Your task to perform on an android device: Google the capital of Paraguay Image 0: 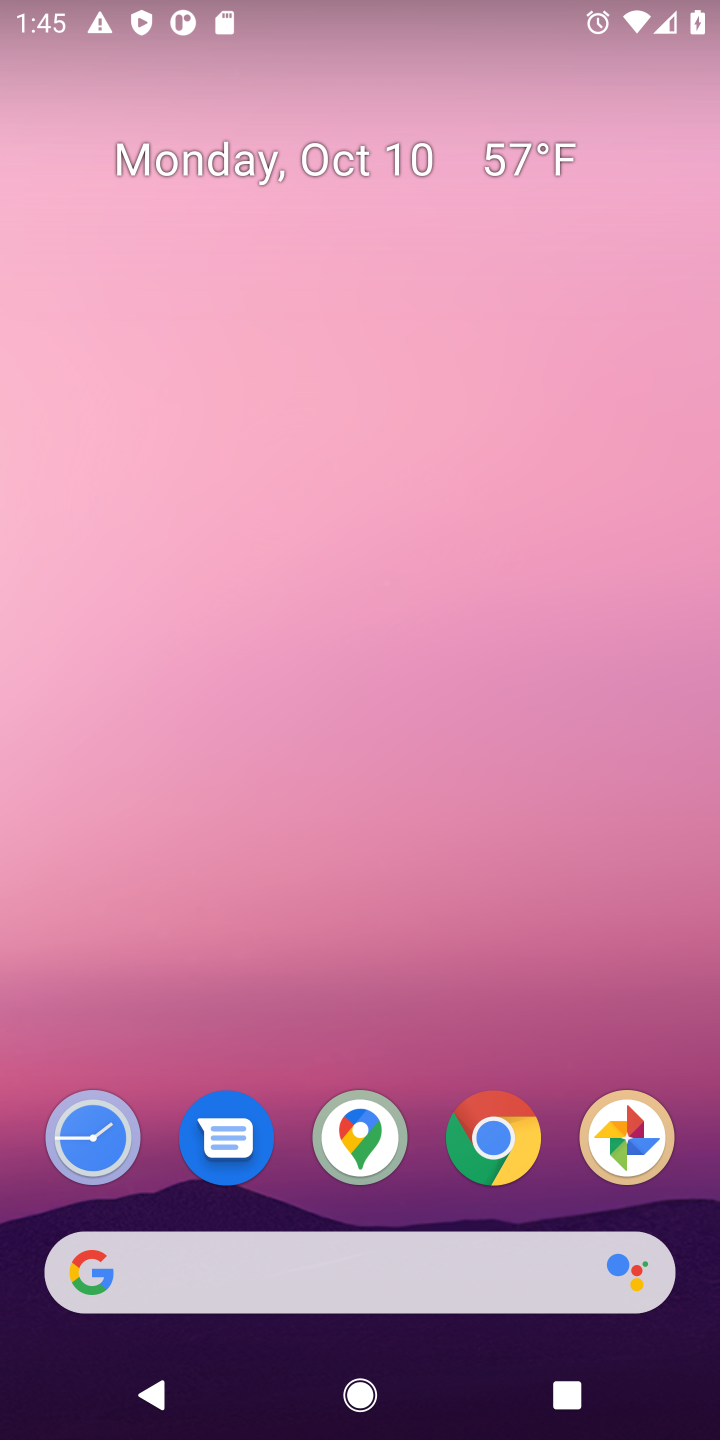
Step 0: click (308, 1289)
Your task to perform on an android device: Google the capital of Paraguay Image 1: 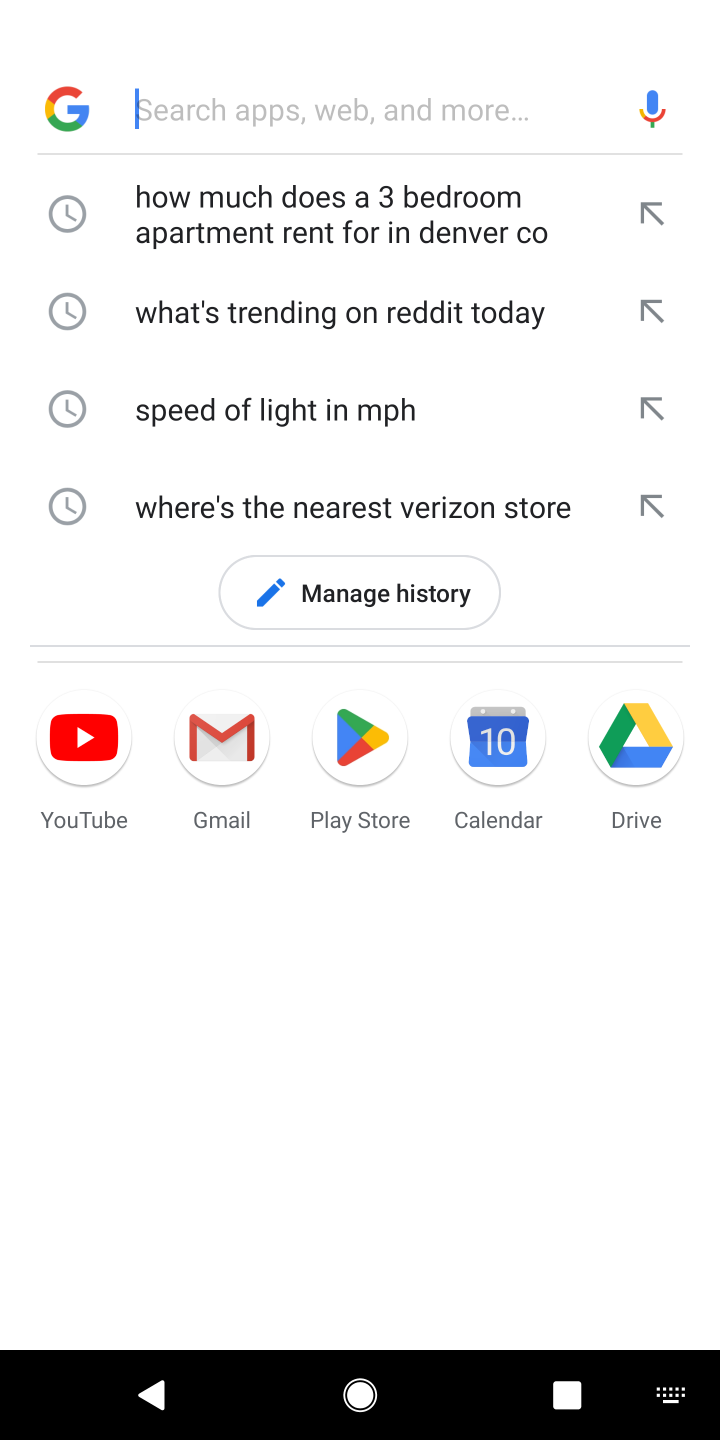
Step 1: type "capital of Paraguay"
Your task to perform on an android device: Google the capital of Paraguay Image 2: 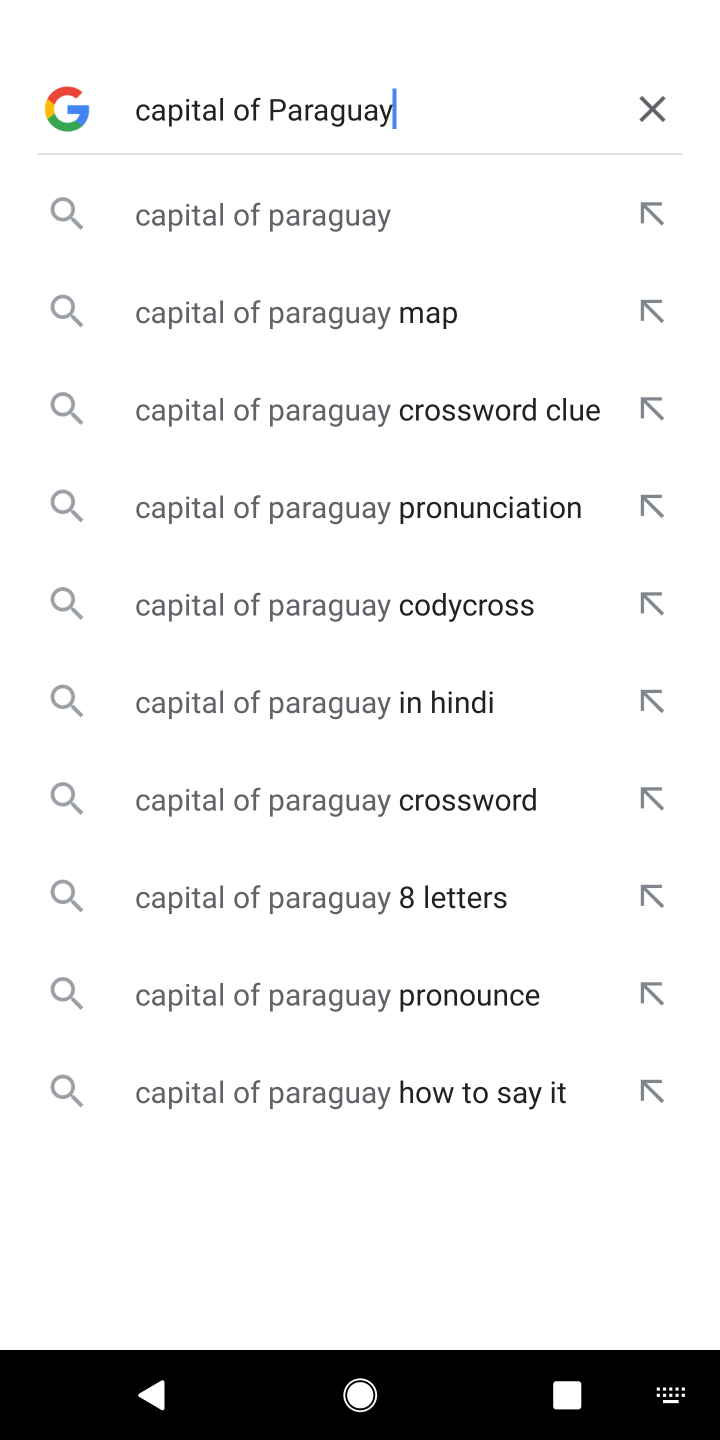
Step 2: click (303, 208)
Your task to perform on an android device: Google the capital of Paraguay Image 3: 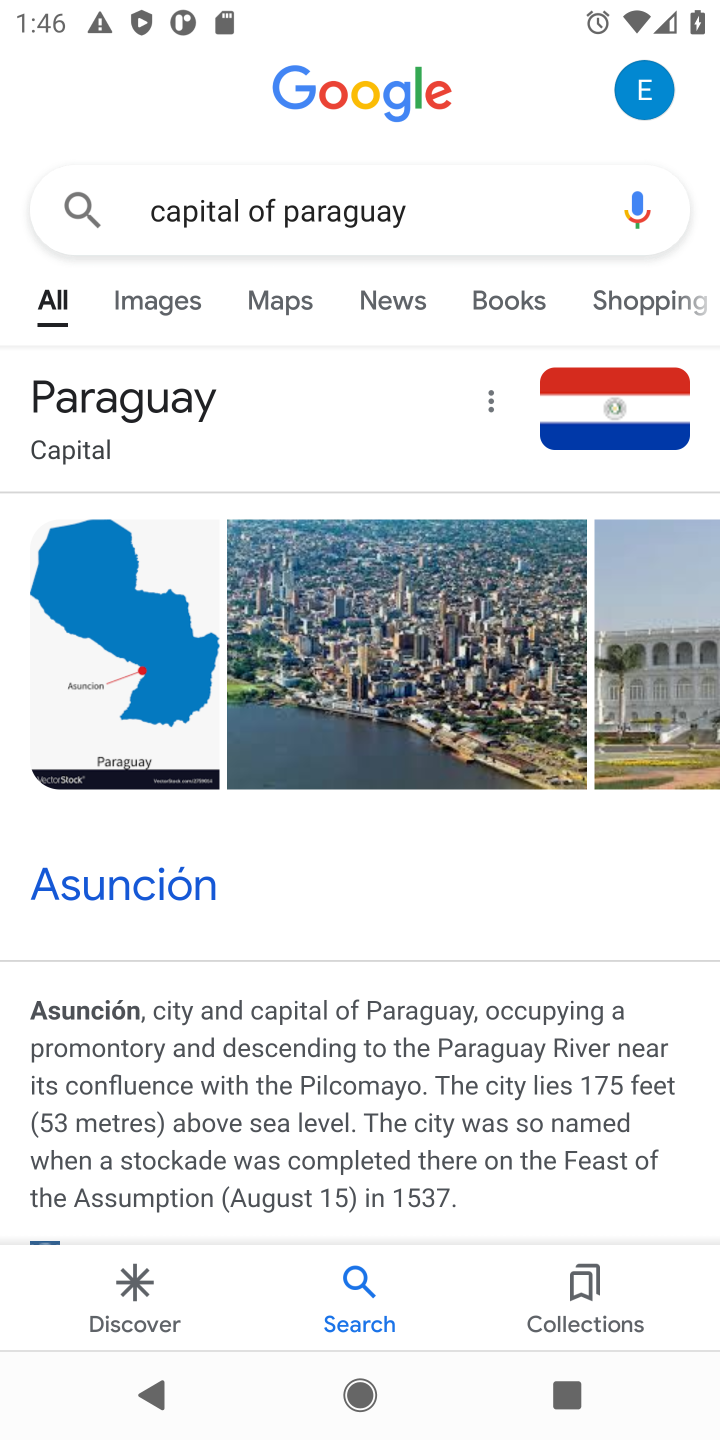
Step 3: task complete